Your task to perform on an android device: toggle notifications settings in the gmail app Image 0: 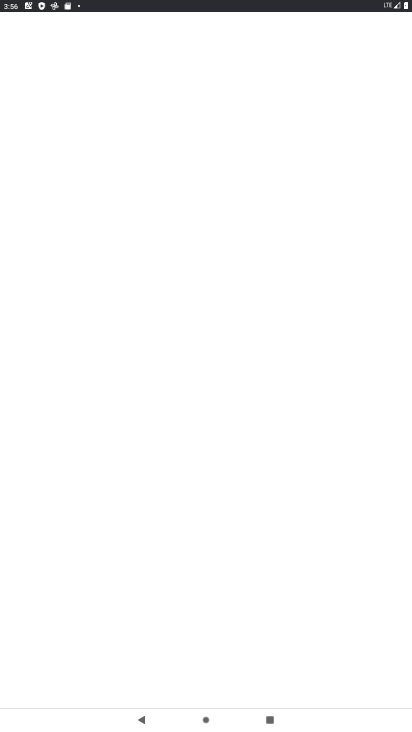
Step 0: drag from (286, 550) to (298, 278)
Your task to perform on an android device: toggle notifications settings in the gmail app Image 1: 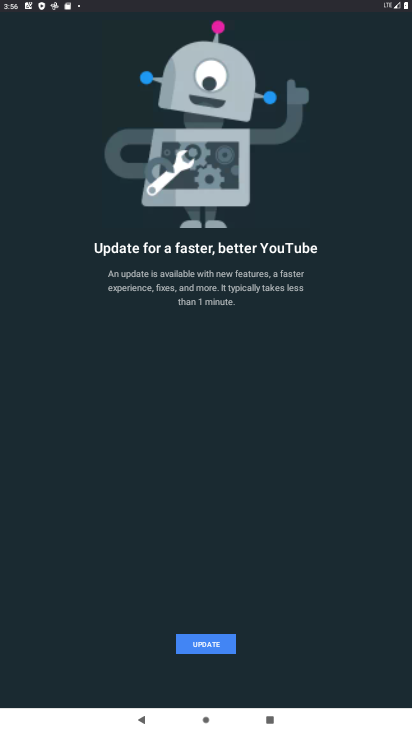
Step 1: press home button
Your task to perform on an android device: toggle notifications settings in the gmail app Image 2: 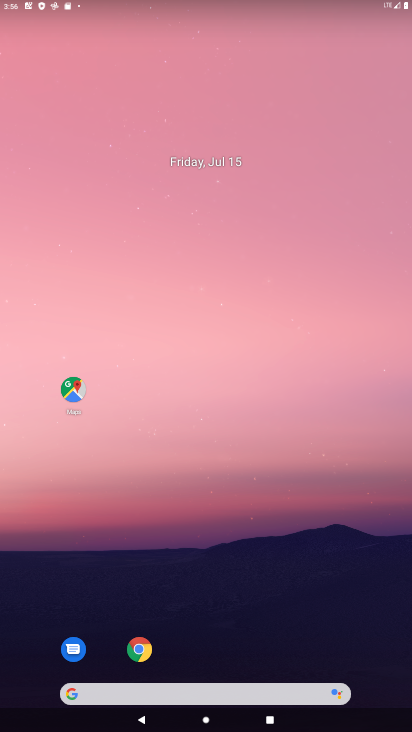
Step 2: drag from (314, 558) to (307, 100)
Your task to perform on an android device: toggle notifications settings in the gmail app Image 3: 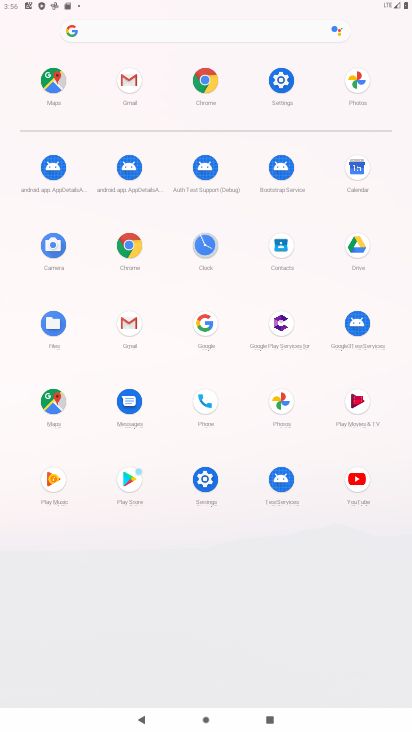
Step 3: click (129, 327)
Your task to perform on an android device: toggle notifications settings in the gmail app Image 4: 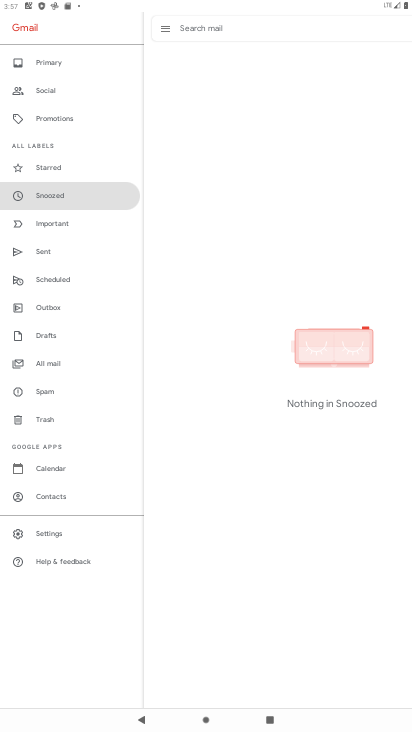
Step 4: click (54, 530)
Your task to perform on an android device: toggle notifications settings in the gmail app Image 5: 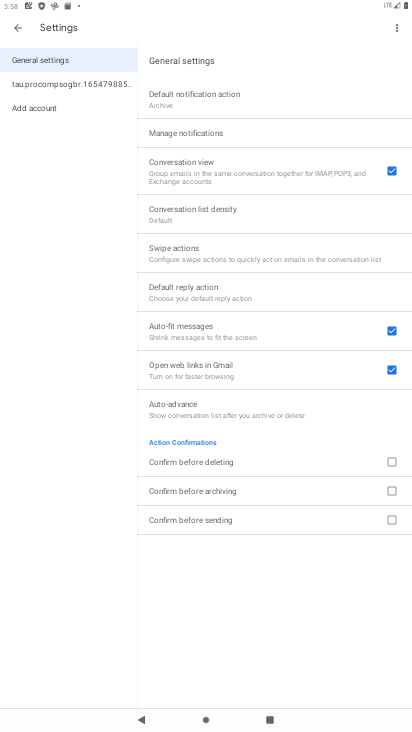
Step 5: click (73, 90)
Your task to perform on an android device: toggle notifications settings in the gmail app Image 6: 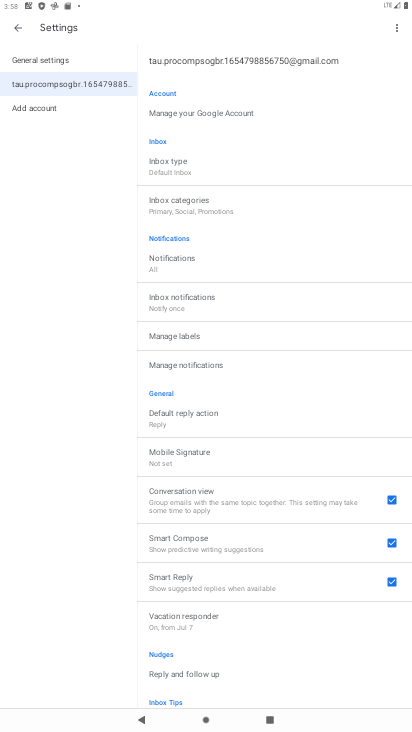
Step 6: click (204, 364)
Your task to perform on an android device: toggle notifications settings in the gmail app Image 7: 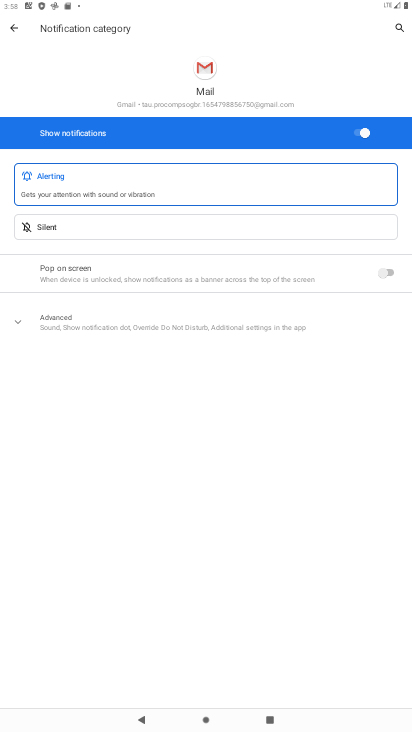
Step 7: click (335, 132)
Your task to perform on an android device: toggle notifications settings in the gmail app Image 8: 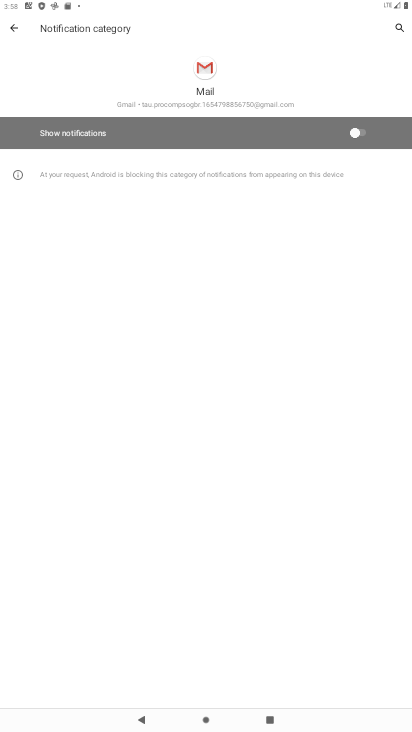
Step 8: task complete